Your task to perform on an android device: Open Google Maps Image 0: 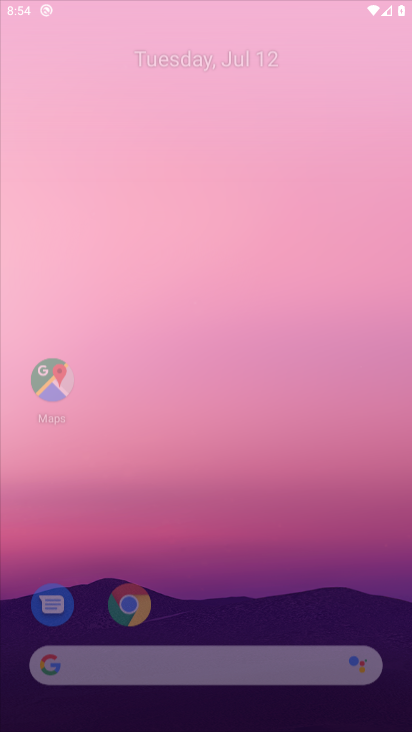
Step 0: press home button
Your task to perform on an android device: Open Google Maps Image 1: 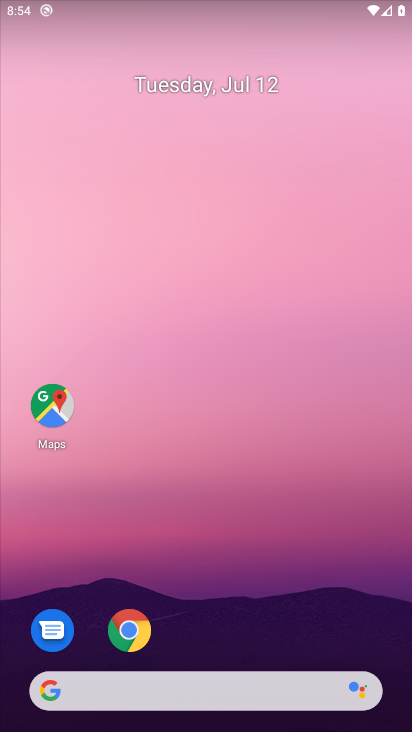
Step 1: drag from (229, 633) to (237, 69)
Your task to perform on an android device: Open Google Maps Image 2: 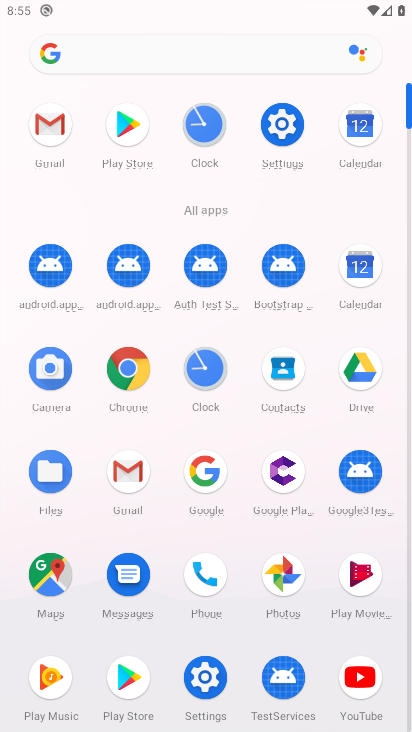
Step 2: click (41, 582)
Your task to perform on an android device: Open Google Maps Image 3: 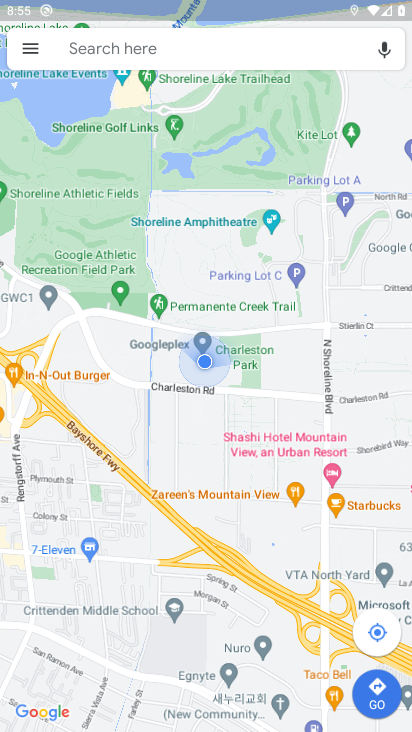
Step 3: task complete